Your task to perform on an android device: Open network settings Image 0: 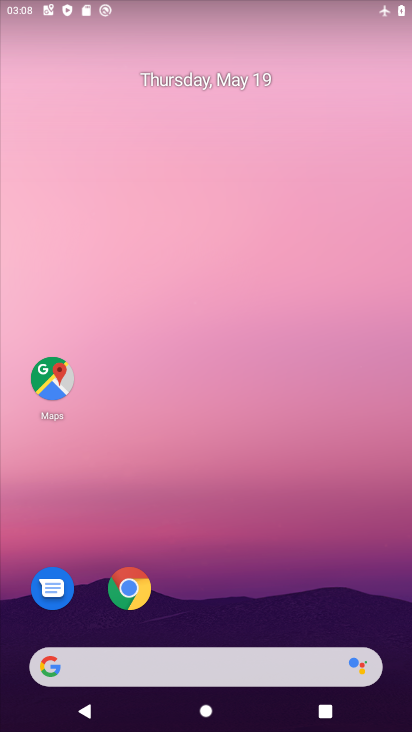
Step 0: drag from (271, 573) to (311, 94)
Your task to perform on an android device: Open network settings Image 1: 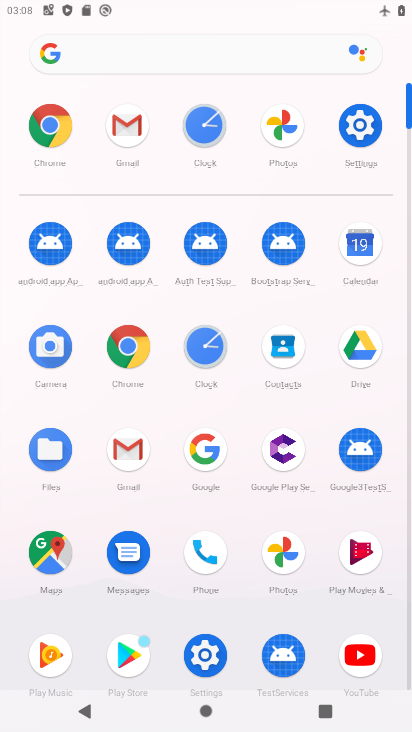
Step 1: click (361, 122)
Your task to perform on an android device: Open network settings Image 2: 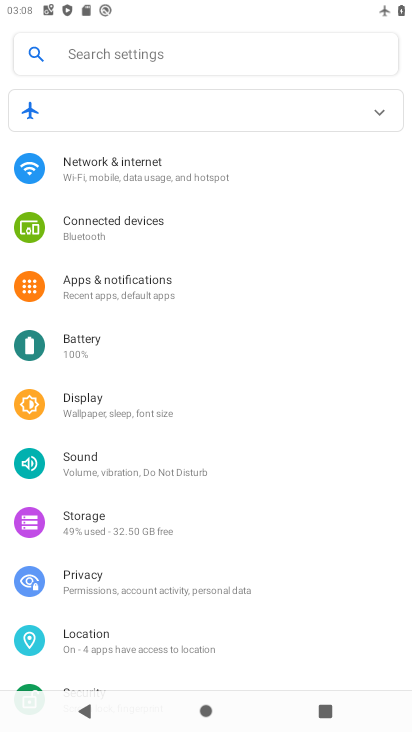
Step 2: click (99, 178)
Your task to perform on an android device: Open network settings Image 3: 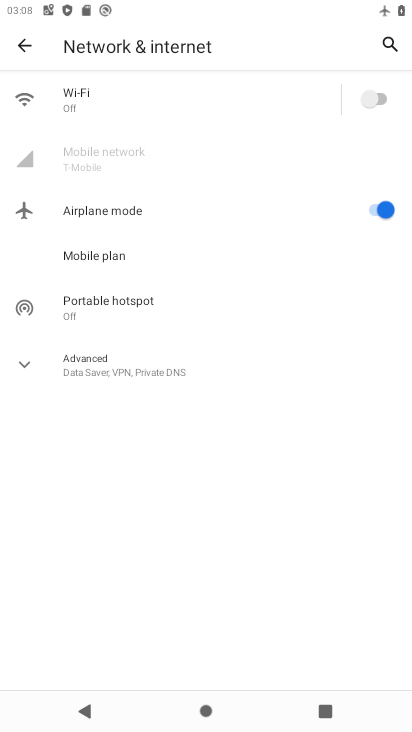
Step 3: click (374, 205)
Your task to perform on an android device: Open network settings Image 4: 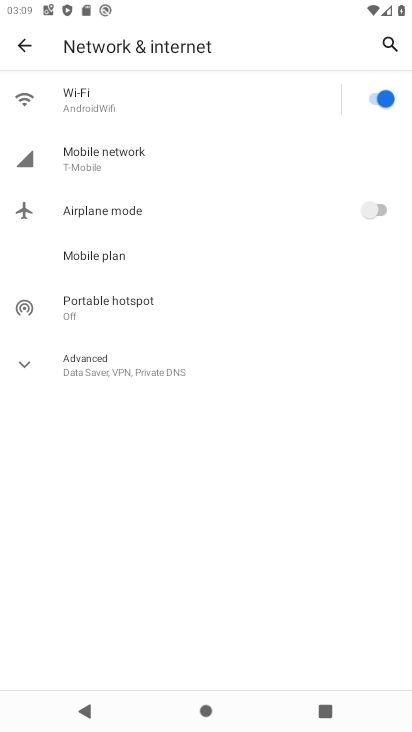
Step 4: task complete